Your task to perform on an android device: toggle improve location accuracy Image 0: 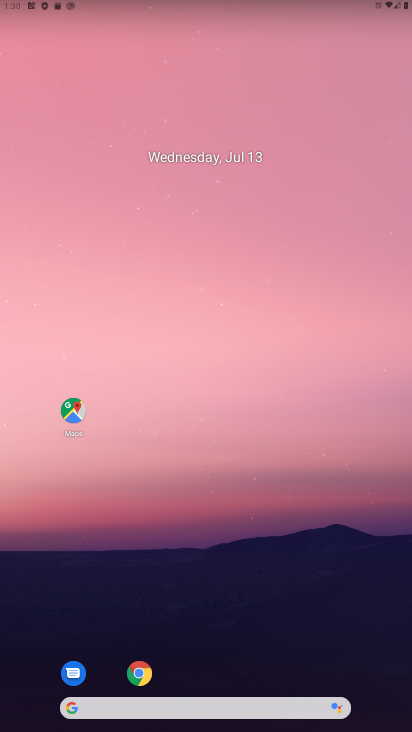
Step 0: drag from (247, 635) to (237, 151)
Your task to perform on an android device: toggle improve location accuracy Image 1: 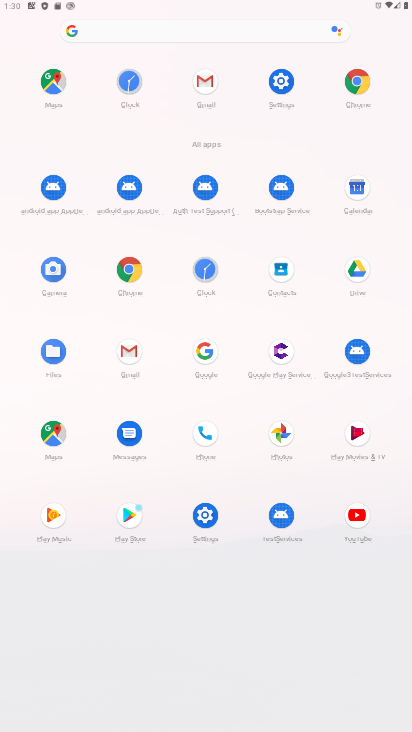
Step 1: click (206, 519)
Your task to perform on an android device: toggle improve location accuracy Image 2: 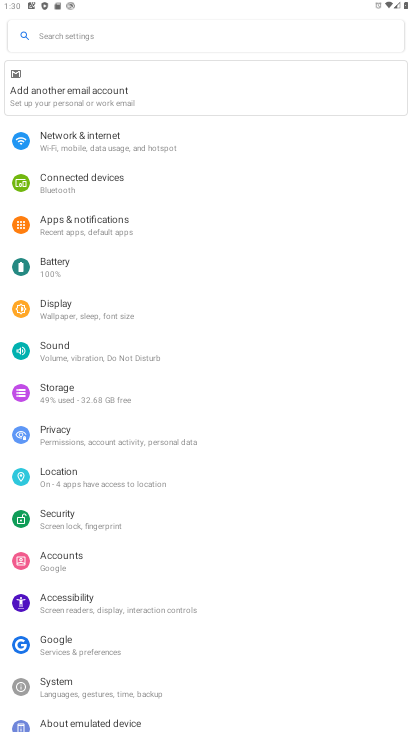
Step 2: click (79, 465)
Your task to perform on an android device: toggle improve location accuracy Image 3: 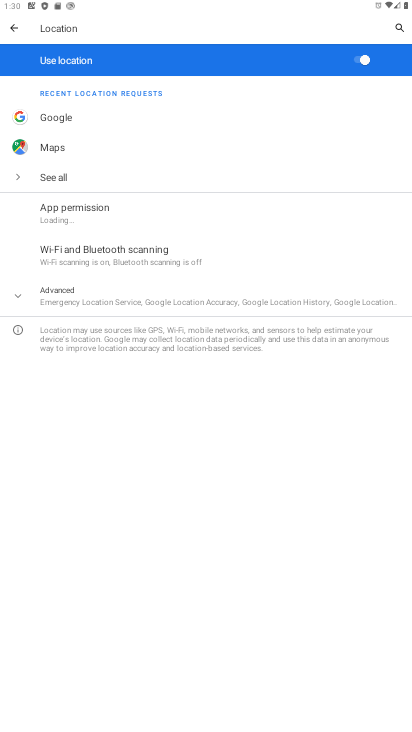
Step 3: click (69, 292)
Your task to perform on an android device: toggle improve location accuracy Image 4: 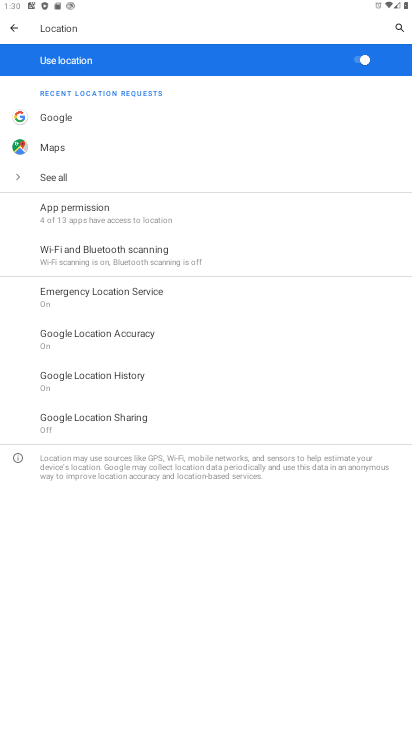
Step 4: click (128, 334)
Your task to perform on an android device: toggle improve location accuracy Image 5: 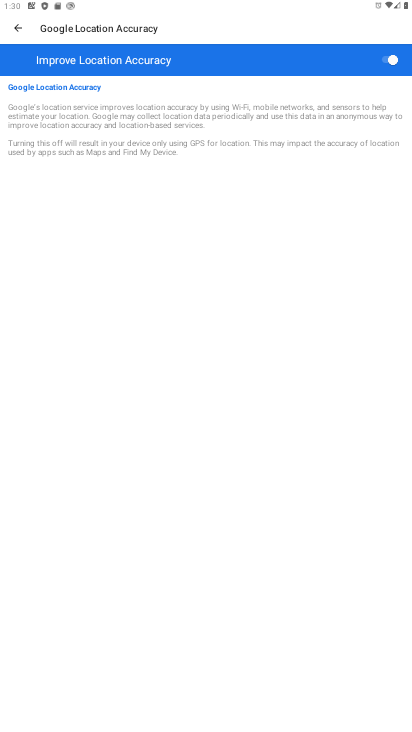
Step 5: click (393, 54)
Your task to perform on an android device: toggle improve location accuracy Image 6: 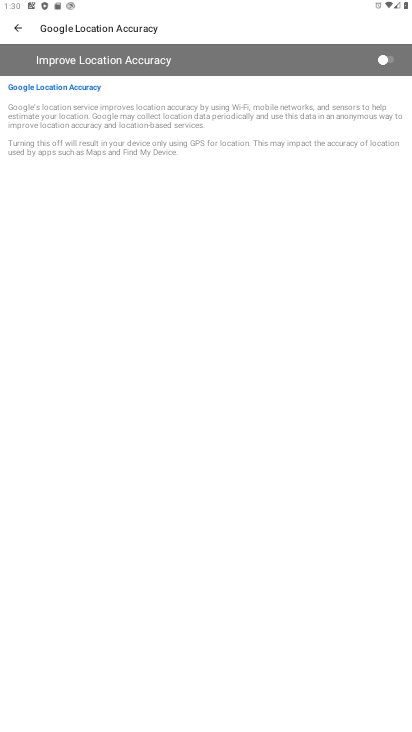
Step 6: task complete